Your task to perform on an android device: Open Yahoo.com Image 0: 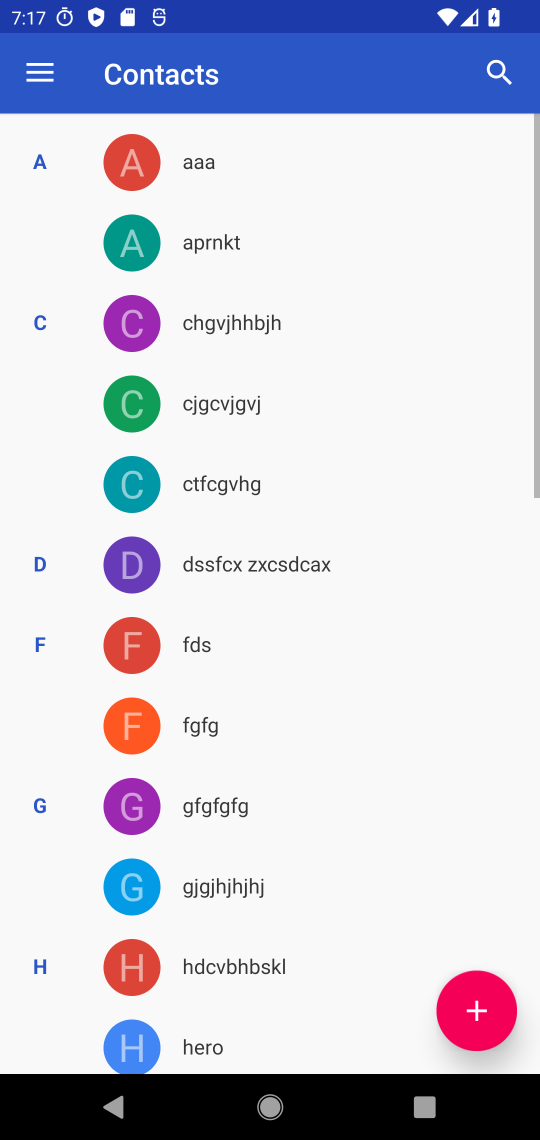
Step 0: drag from (403, 1105) to (231, 174)
Your task to perform on an android device: Open Yahoo.com Image 1: 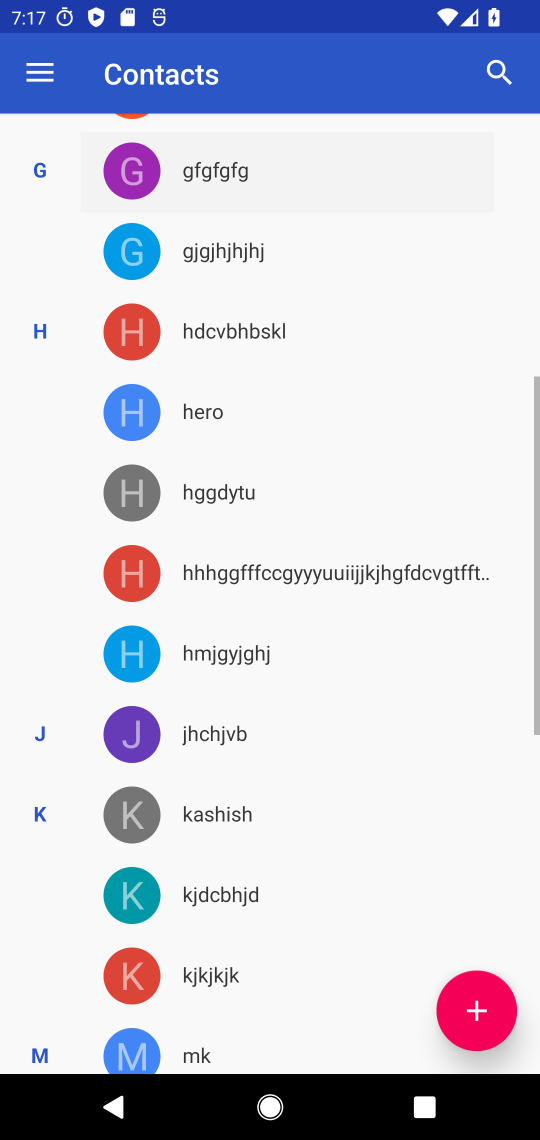
Step 1: press back button
Your task to perform on an android device: Open Yahoo.com Image 2: 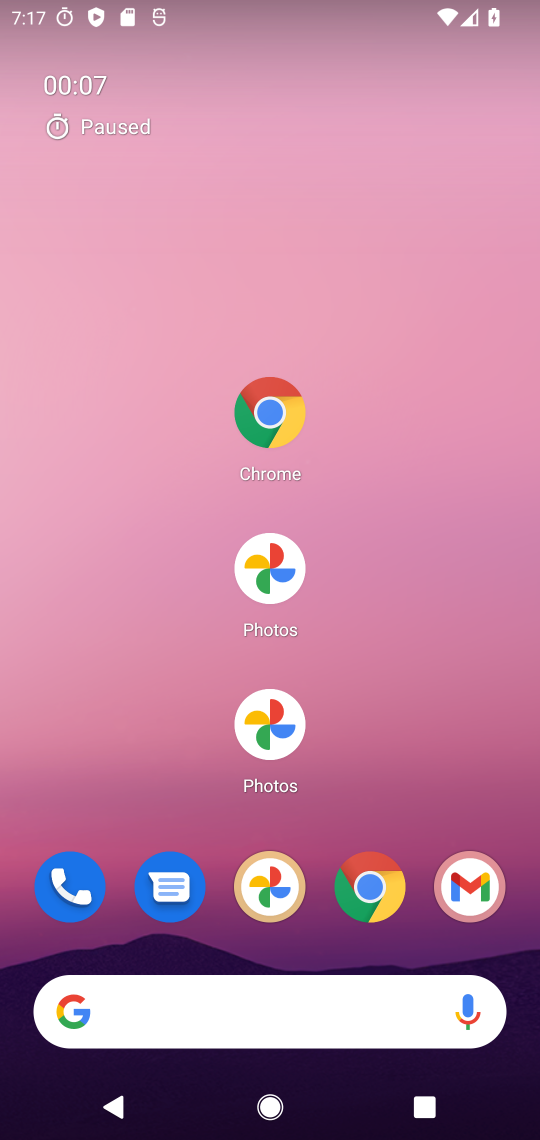
Step 2: drag from (354, 917) to (318, 113)
Your task to perform on an android device: Open Yahoo.com Image 3: 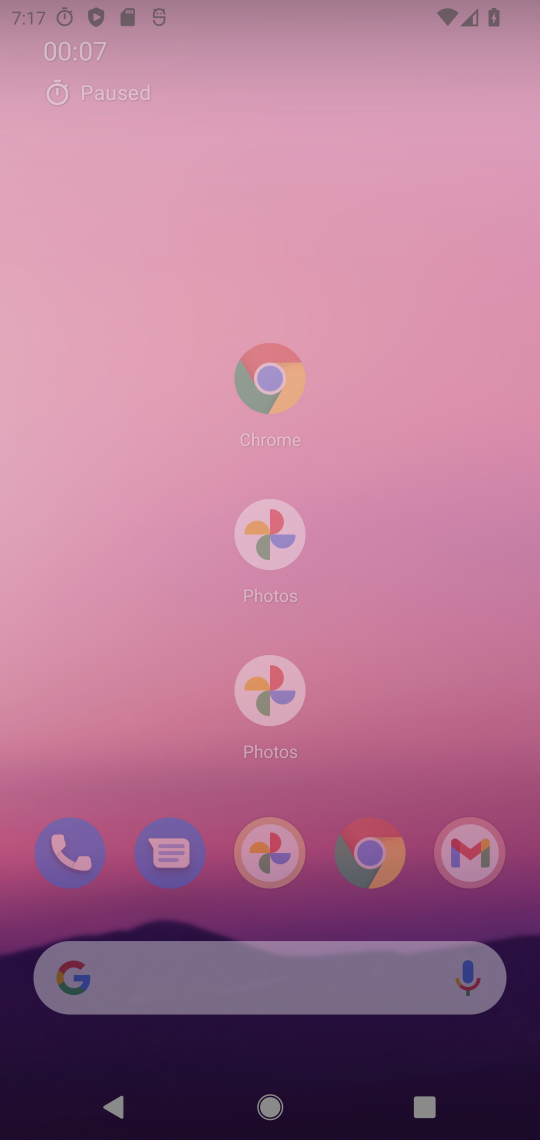
Step 3: drag from (312, 834) to (283, 286)
Your task to perform on an android device: Open Yahoo.com Image 4: 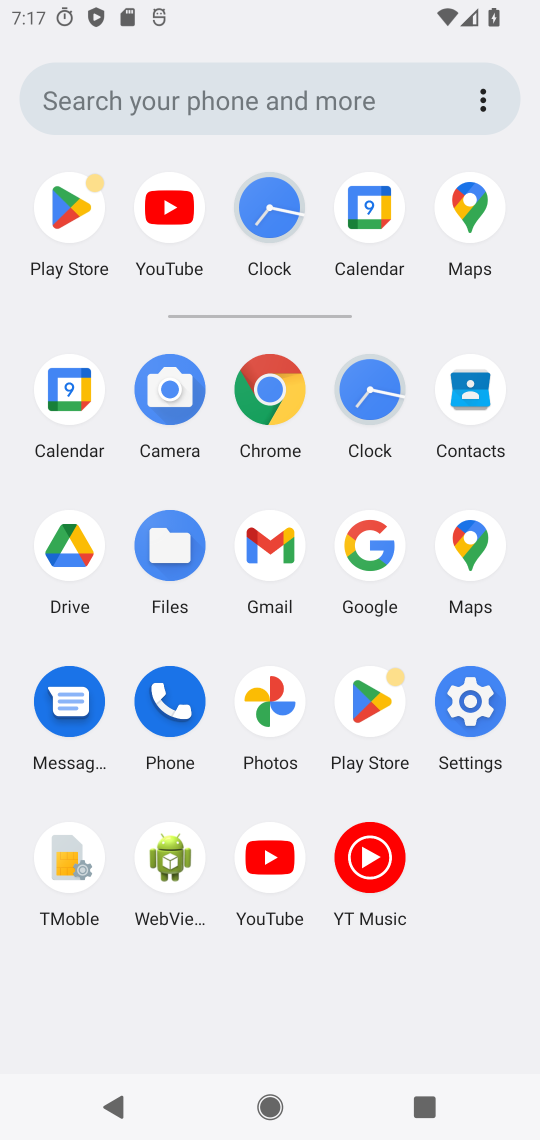
Step 4: click (266, 383)
Your task to perform on an android device: Open Yahoo.com Image 5: 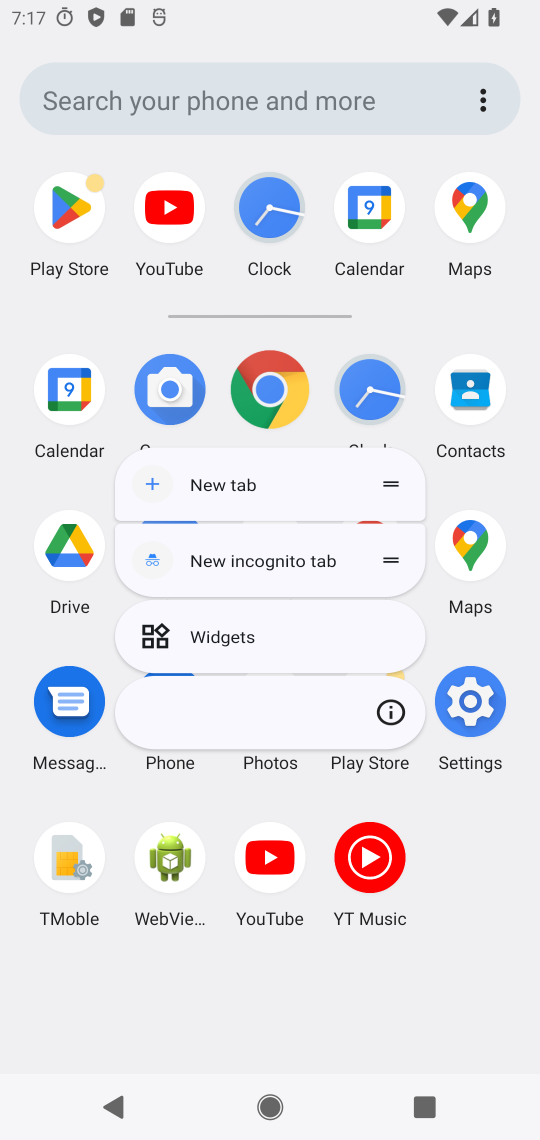
Step 5: click (273, 385)
Your task to perform on an android device: Open Yahoo.com Image 6: 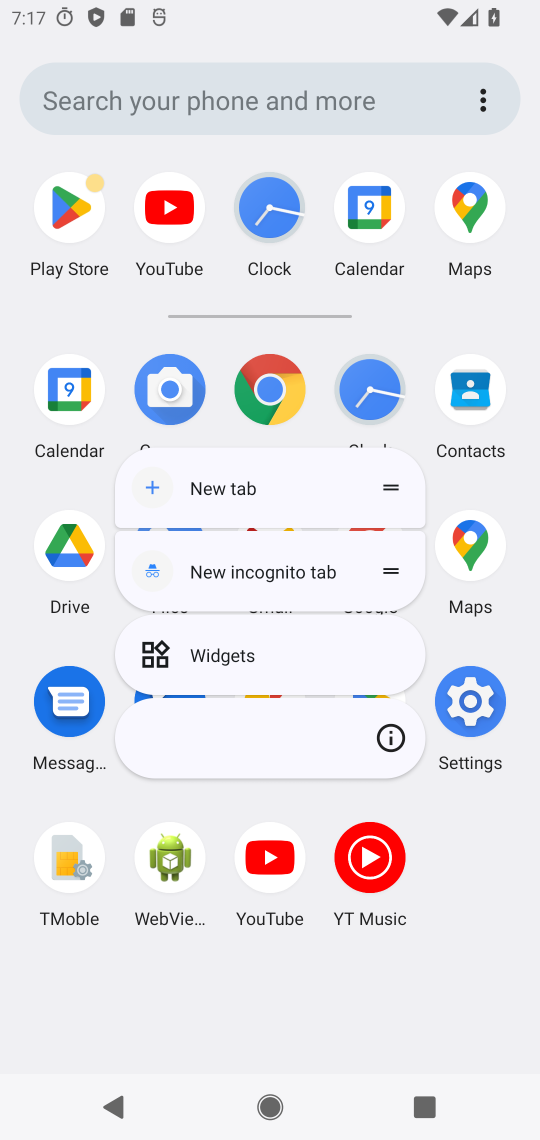
Step 6: click (277, 398)
Your task to perform on an android device: Open Yahoo.com Image 7: 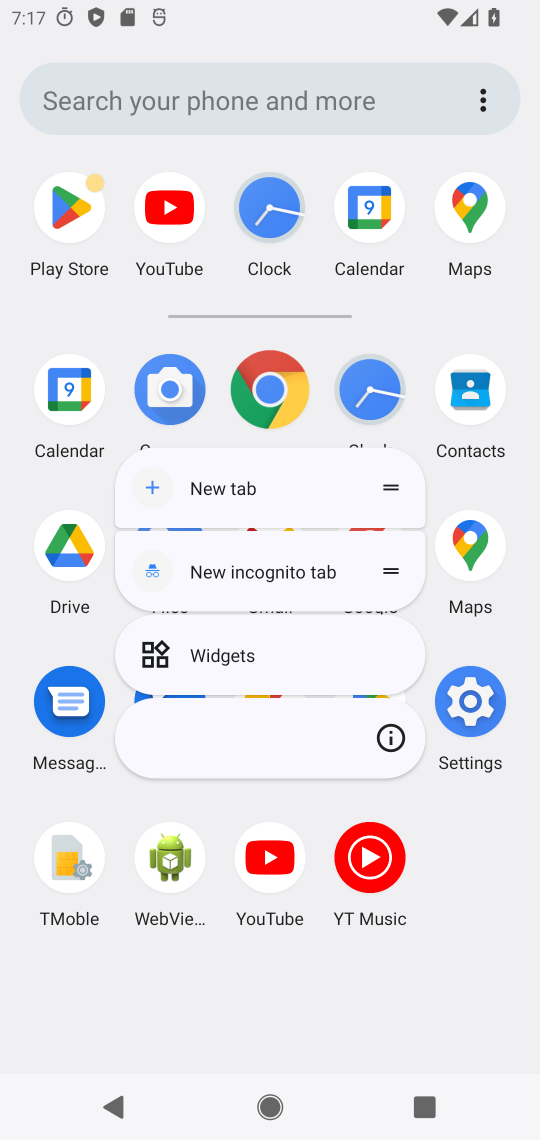
Step 7: click (277, 374)
Your task to perform on an android device: Open Yahoo.com Image 8: 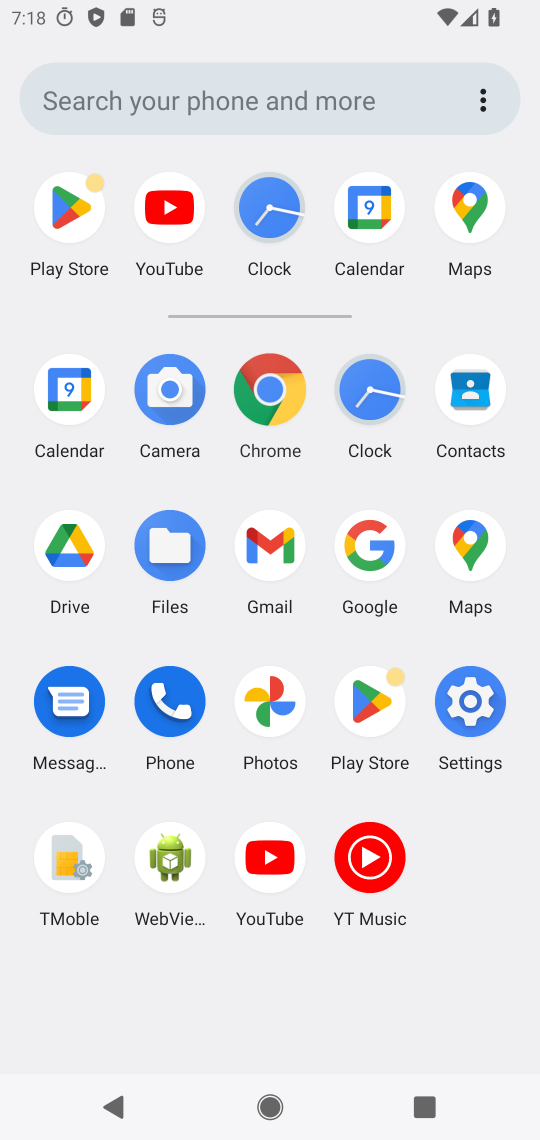
Step 8: click (282, 384)
Your task to perform on an android device: Open Yahoo.com Image 9: 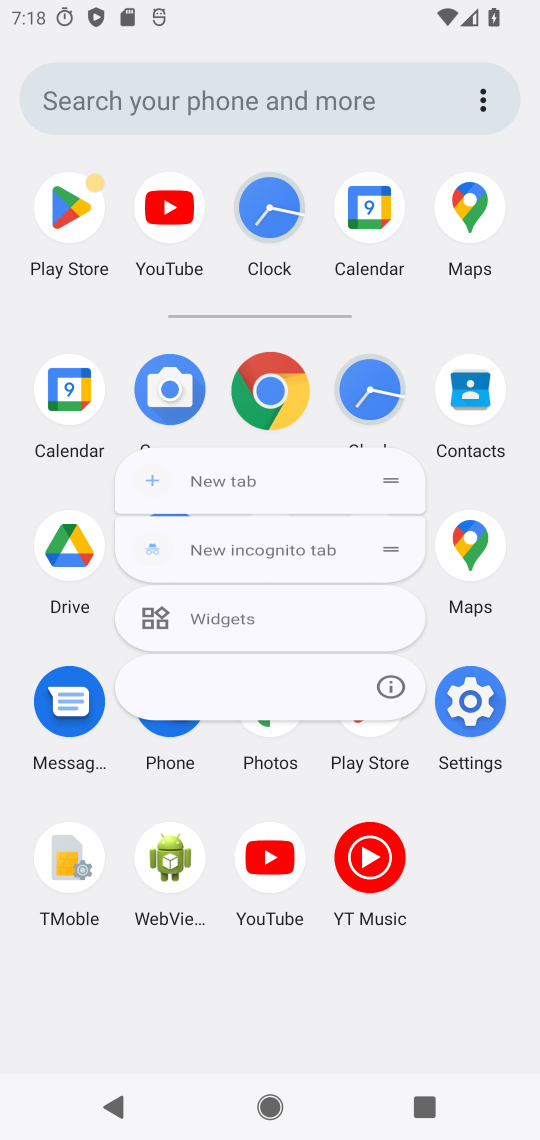
Step 9: click (282, 384)
Your task to perform on an android device: Open Yahoo.com Image 10: 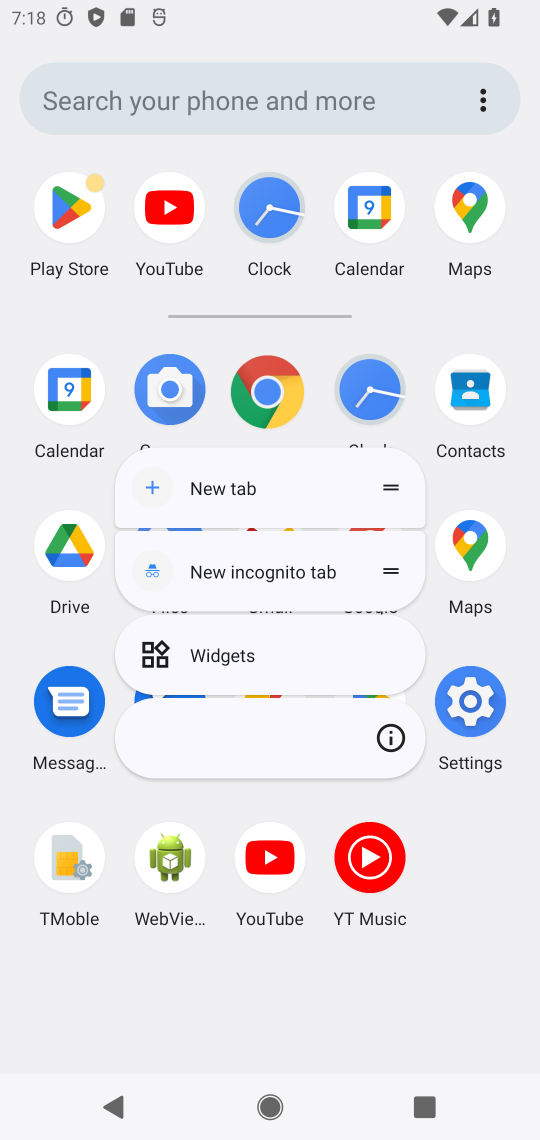
Step 10: click (278, 397)
Your task to perform on an android device: Open Yahoo.com Image 11: 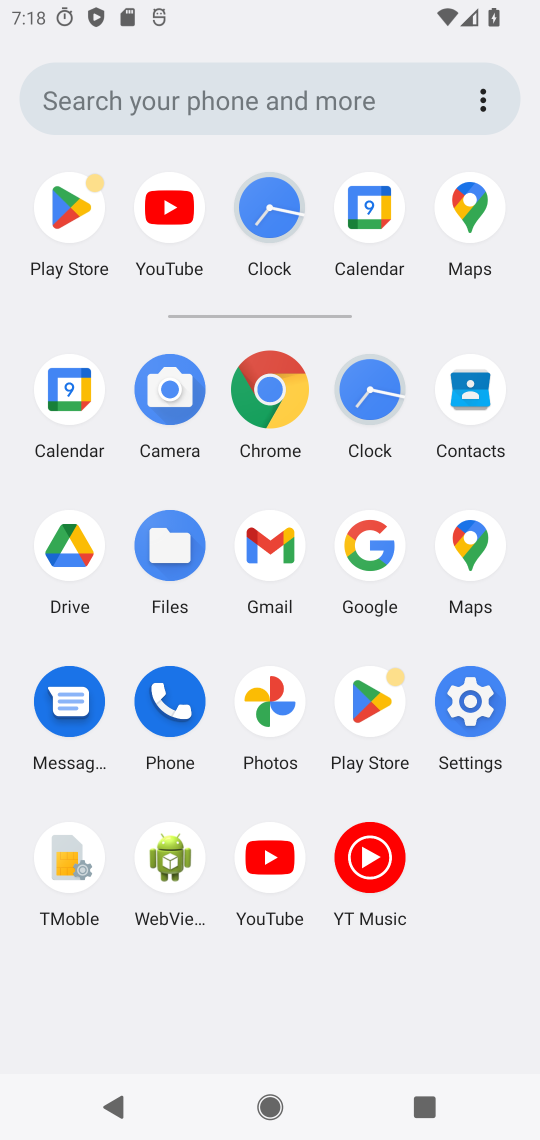
Step 11: click (258, 469)
Your task to perform on an android device: Open Yahoo.com Image 12: 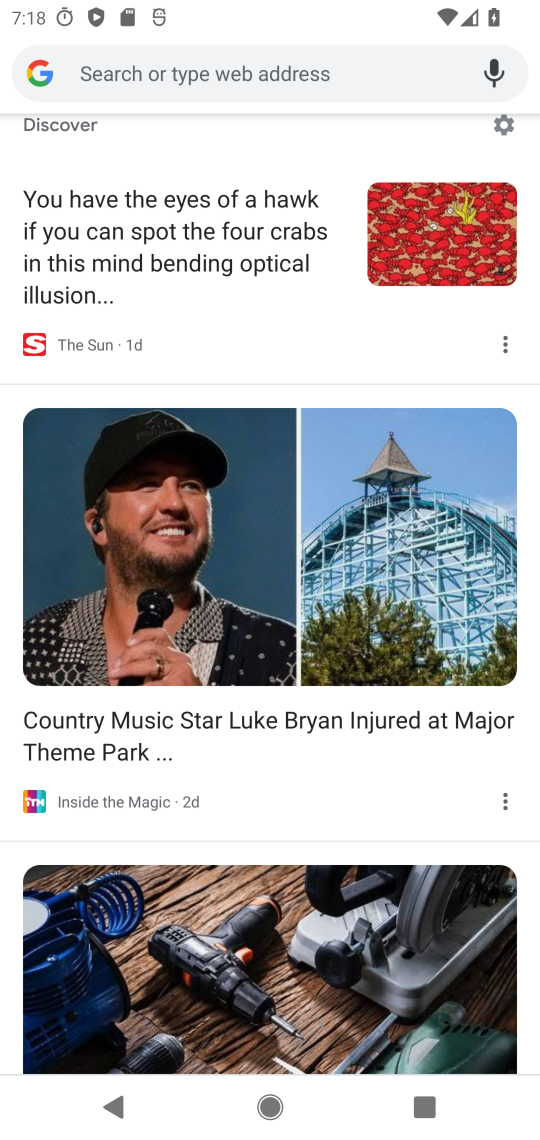
Step 12: drag from (227, 387) to (264, 1018)
Your task to perform on an android device: Open Yahoo.com Image 13: 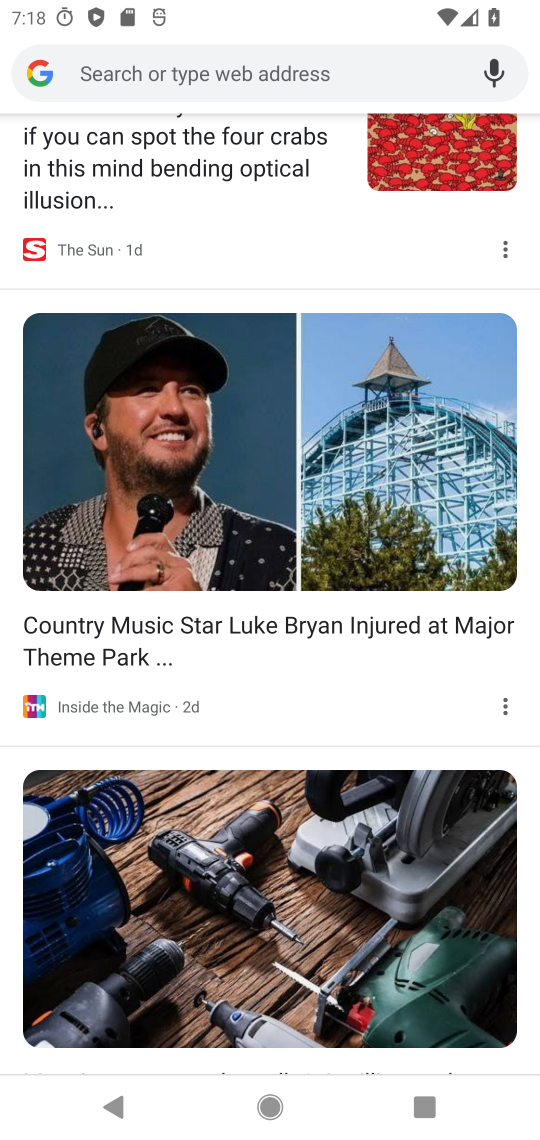
Step 13: drag from (202, 1058) to (314, 1114)
Your task to perform on an android device: Open Yahoo.com Image 14: 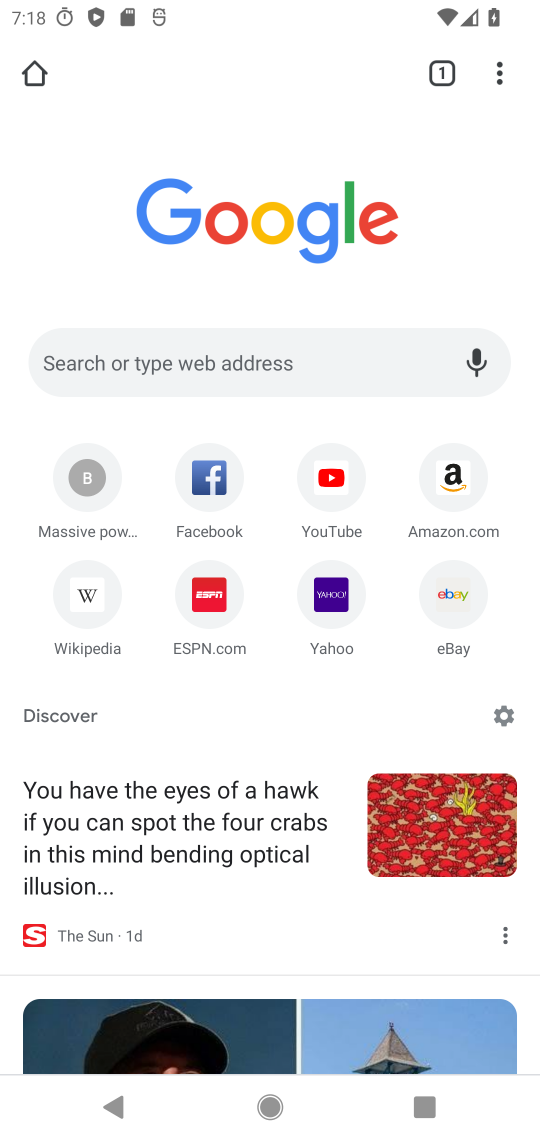
Step 14: click (318, 409)
Your task to perform on an android device: Open Yahoo.com Image 15: 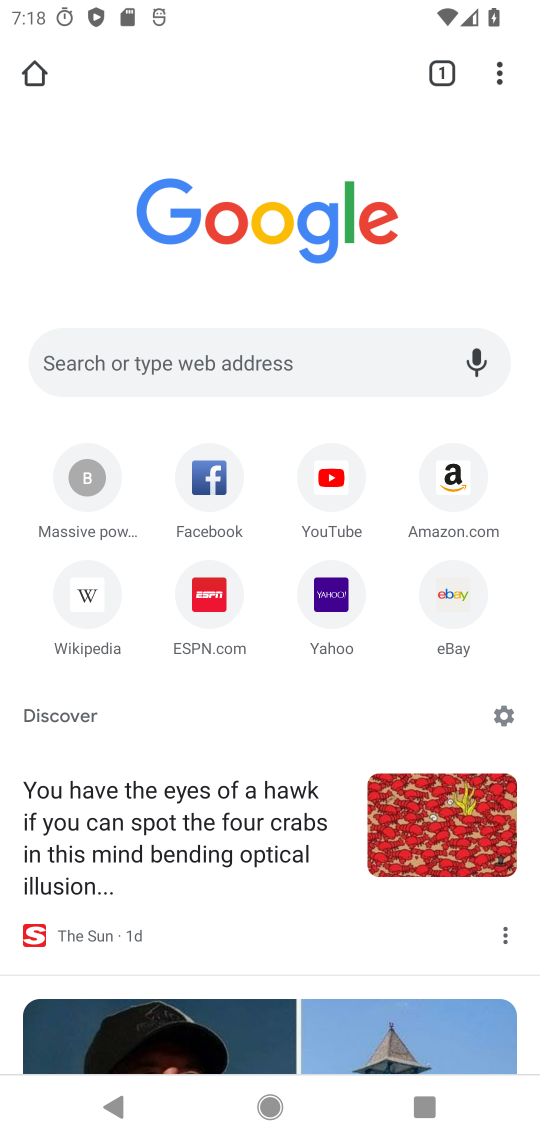
Step 15: click (333, 599)
Your task to perform on an android device: Open Yahoo.com Image 16: 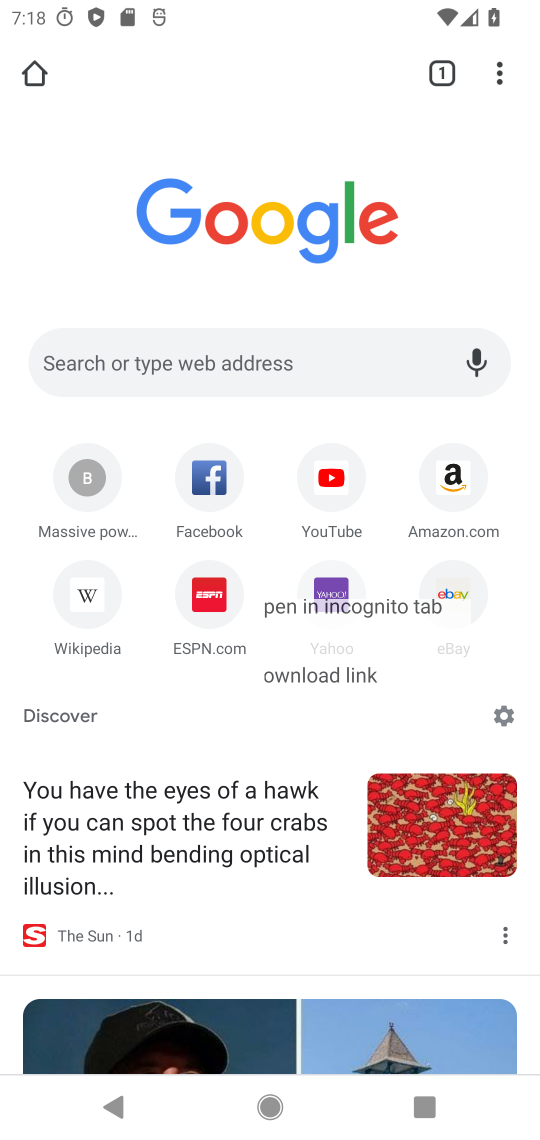
Step 16: click (324, 611)
Your task to perform on an android device: Open Yahoo.com Image 17: 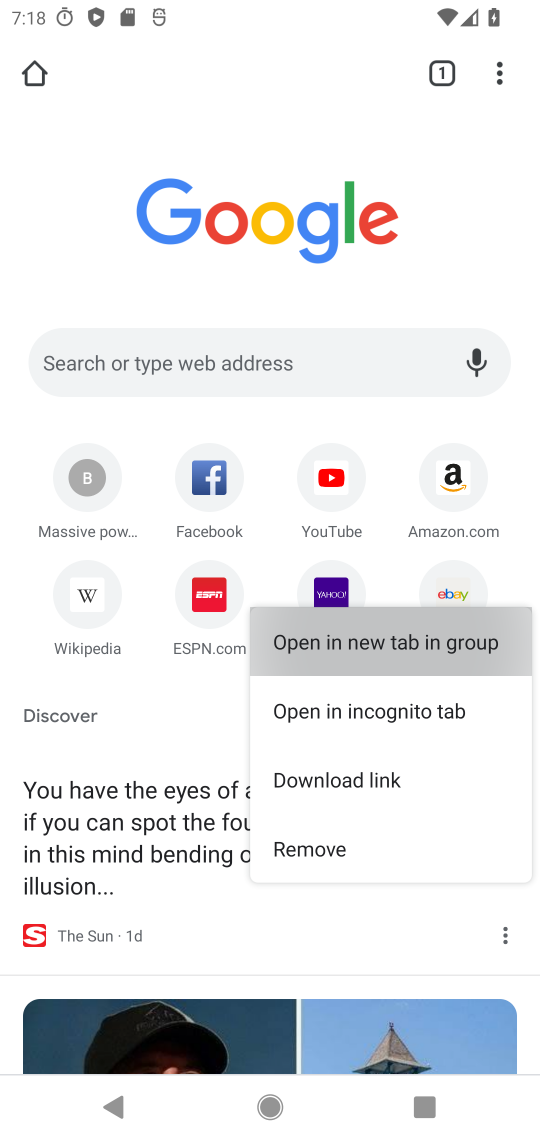
Step 17: click (337, 640)
Your task to perform on an android device: Open Yahoo.com Image 18: 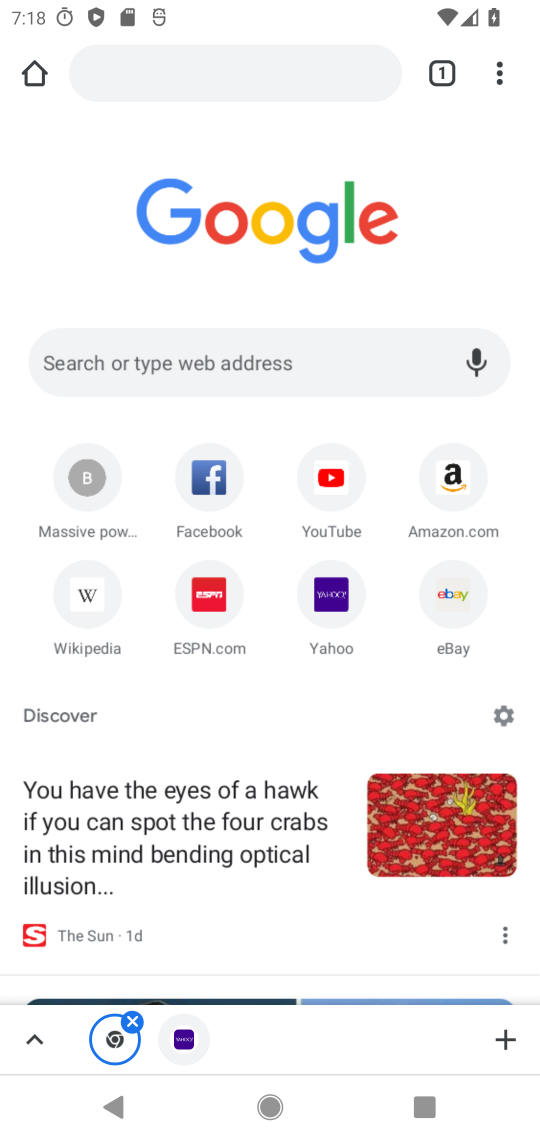
Step 18: click (354, 634)
Your task to perform on an android device: Open Yahoo.com Image 19: 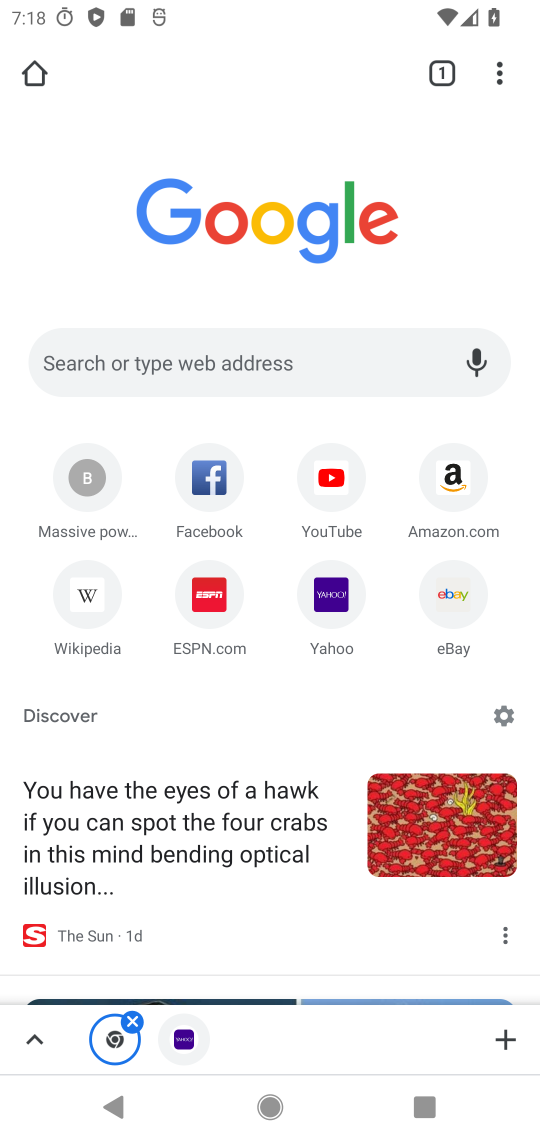
Step 19: click (362, 639)
Your task to perform on an android device: Open Yahoo.com Image 20: 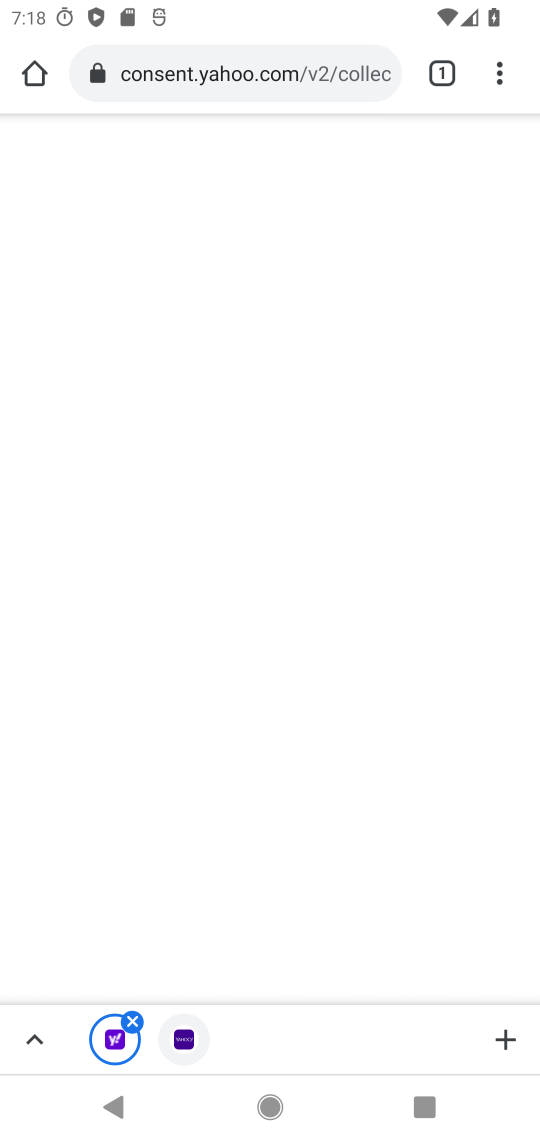
Step 20: task complete